Your task to perform on an android device: turn off notifications settings in the gmail app Image 0: 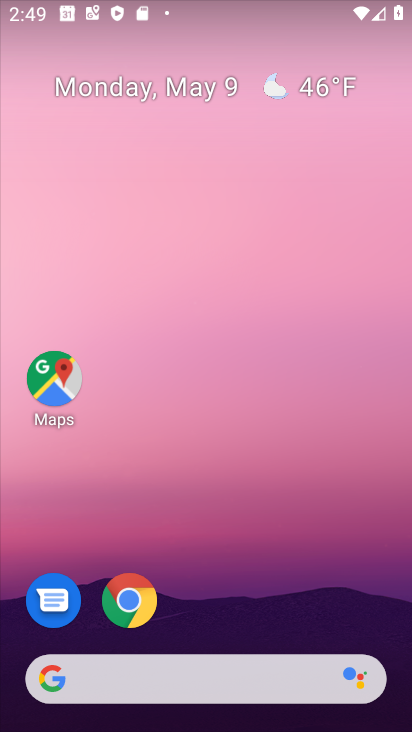
Step 0: drag from (200, 667) to (306, 239)
Your task to perform on an android device: turn off notifications settings in the gmail app Image 1: 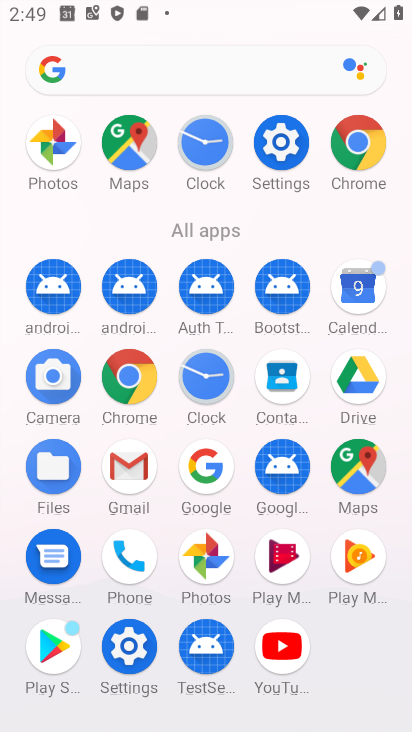
Step 1: click (139, 476)
Your task to perform on an android device: turn off notifications settings in the gmail app Image 2: 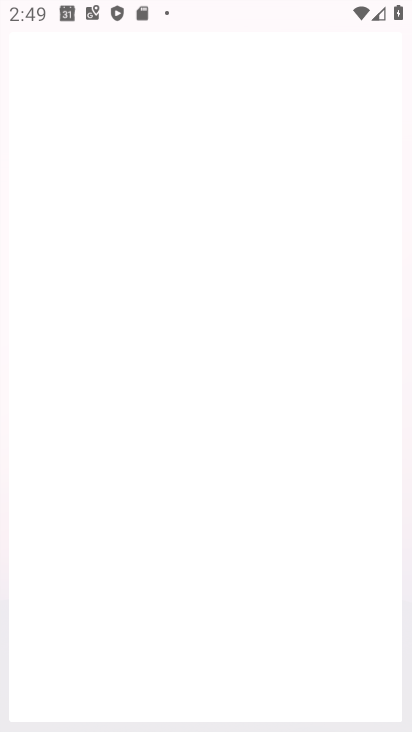
Step 2: click (139, 476)
Your task to perform on an android device: turn off notifications settings in the gmail app Image 3: 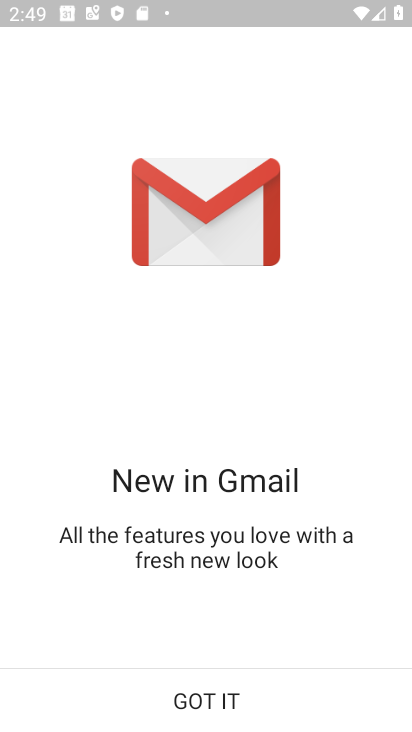
Step 3: click (230, 711)
Your task to perform on an android device: turn off notifications settings in the gmail app Image 4: 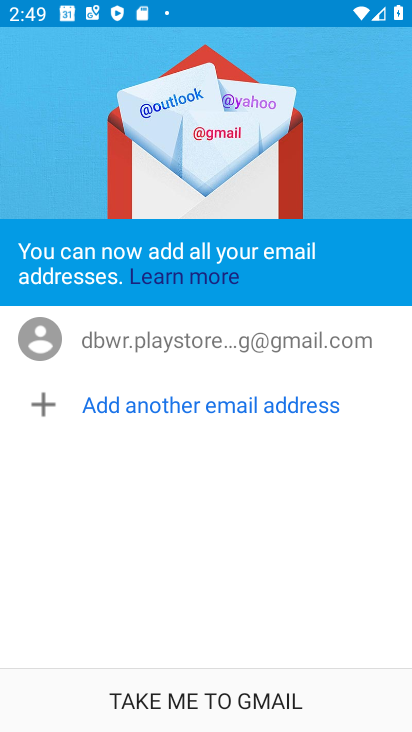
Step 4: click (230, 711)
Your task to perform on an android device: turn off notifications settings in the gmail app Image 5: 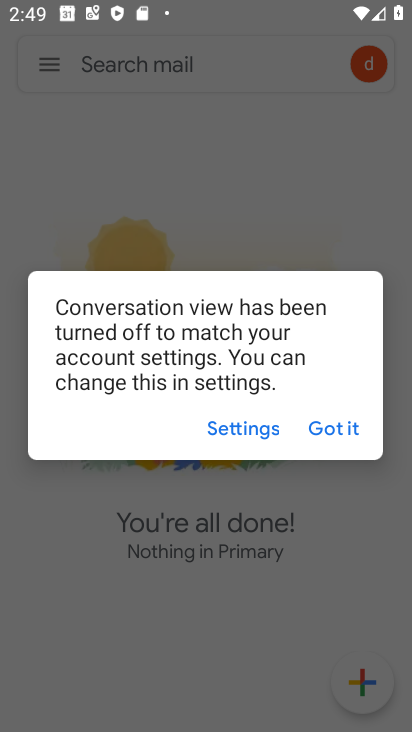
Step 5: click (367, 417)
Your task to perform on an android device: turn off notifications settings in the gmail app Image 6: 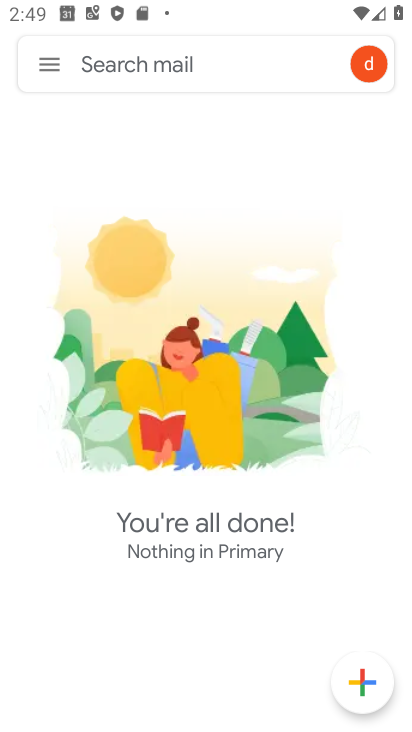
Step 6: click (52, 79)
Your task to perform on an android device: turn off notifications settings in the gmail app Image 7: 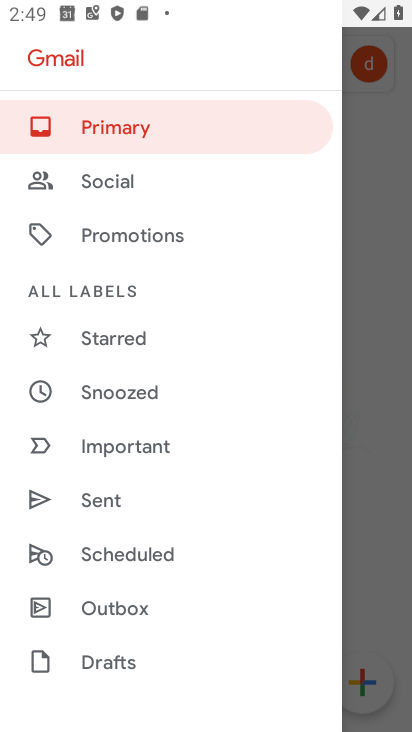
Step 7: drag from (155, 632) to (235, 388)
Your task to perform on an android device: turn off notifications settings in the gmail app Image 8: 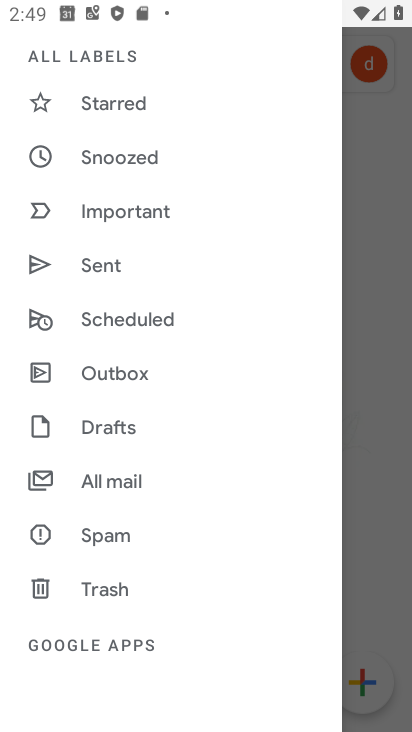
Step 8: drag from (206, 585) to (236, 283)
Your task to perform on an android device: turn off notifications settings in the gmail app Image 9: 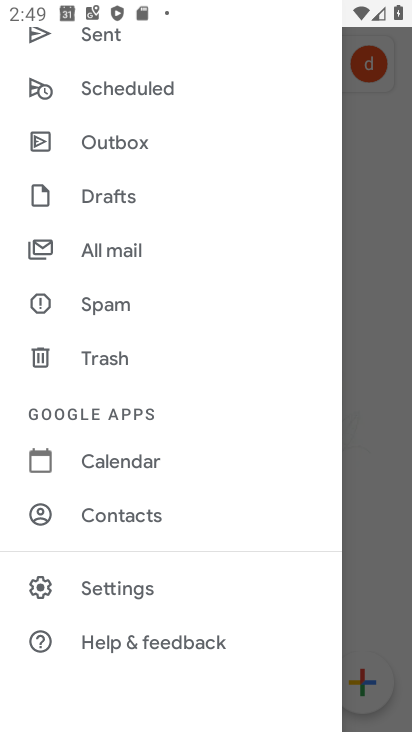
Step 9: click (138, 603)
Your task to perform on an android device: turn off notifications settings in the gmail app Image 10: 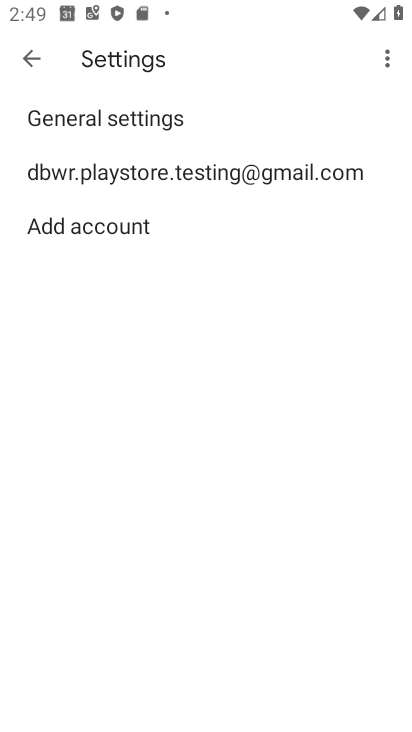
Step 10: click (310, 173)
Your task to perform on an android device: turn off notifications settings in the gmail app Image 11: 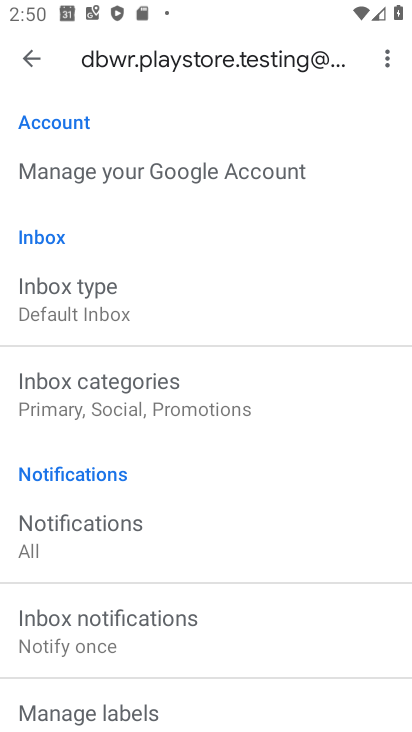
Step 11: drag from (244, 525) to (270, 323)
Your task to perform on an android device: turn off notifications settings in the gmail app Image 12: 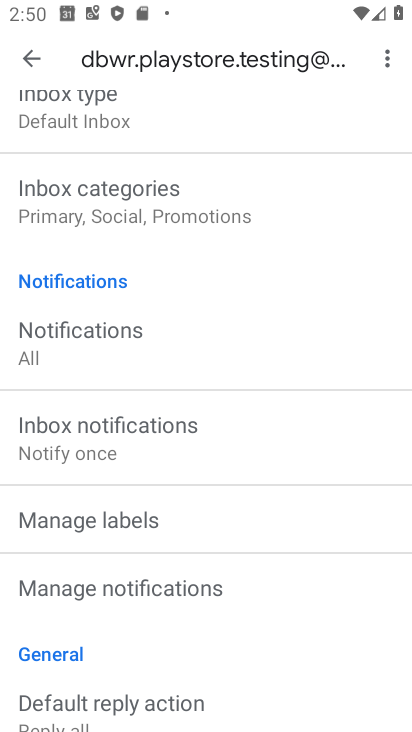
Step 12: click (221, 588)
Your task to perform on an android device: turn off notifications settings in the gmail app Image 13: 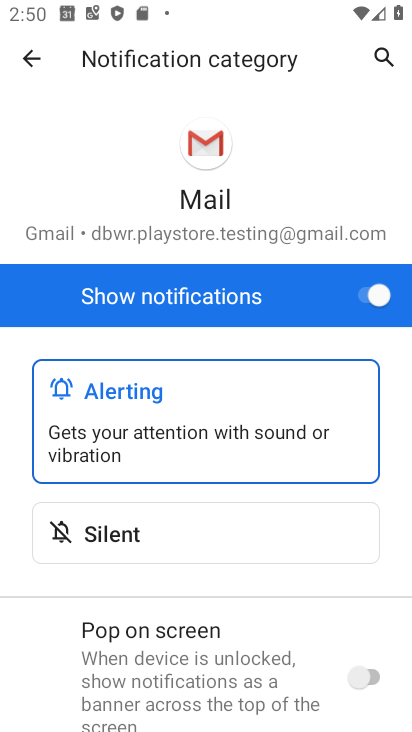
Step 13: click (361, 301)
Your task to perform on an android device: turn off notifications settings in the gmail app Image 14: 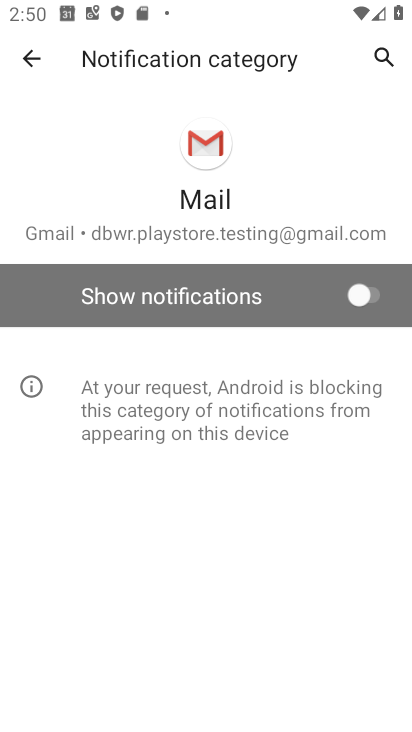
Step 14: task complete